Your task to perform on an android device: see creations saved in the google photos Image 0: 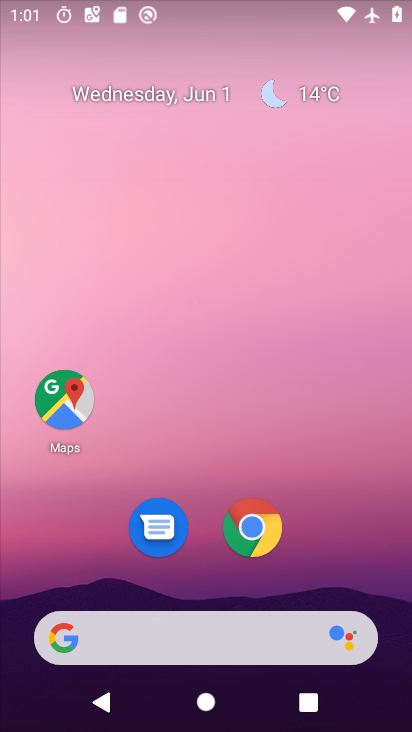
Step 0: drag from (377, 591) to (365, 14)
Your task to perform on an android device: see creations saved in the google photos Image 1: 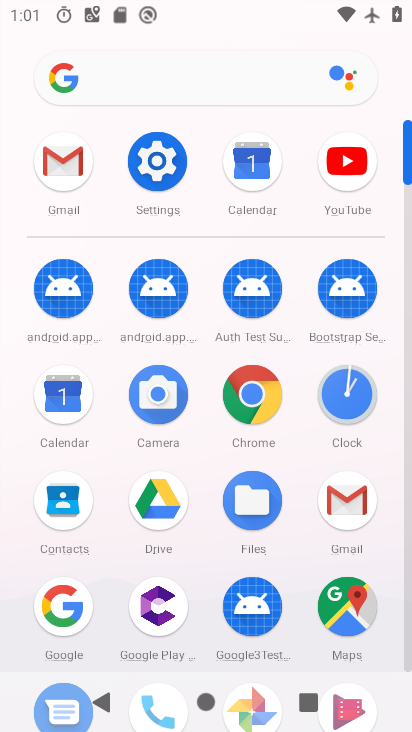
Step 1: click (405, 546)
Your task to perform on an android device: see creations saved in the google photos Image 2: 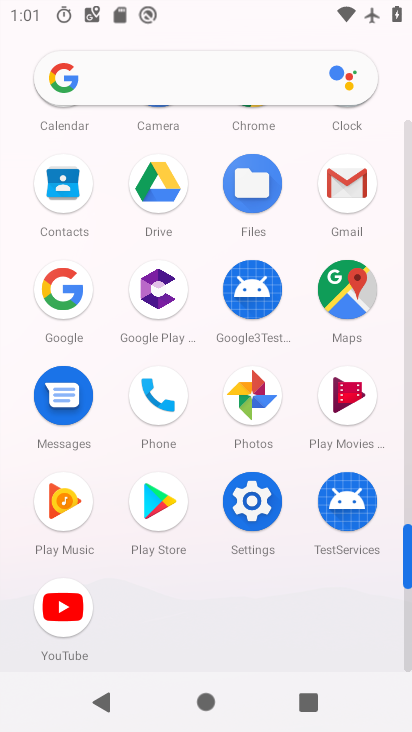
Step 2: click (257, 401)
Your task to perform on an android device: see creations saved in the google photos Image 3: 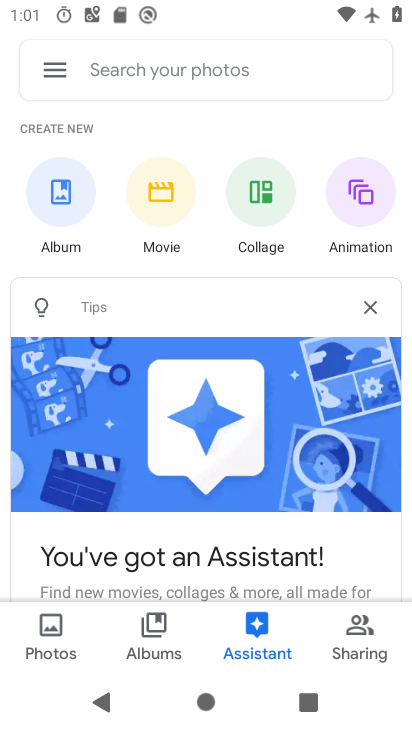
Step 3: click (103, 69)
Your task to perform on an android device: see creations saved in the google photos Image 4: 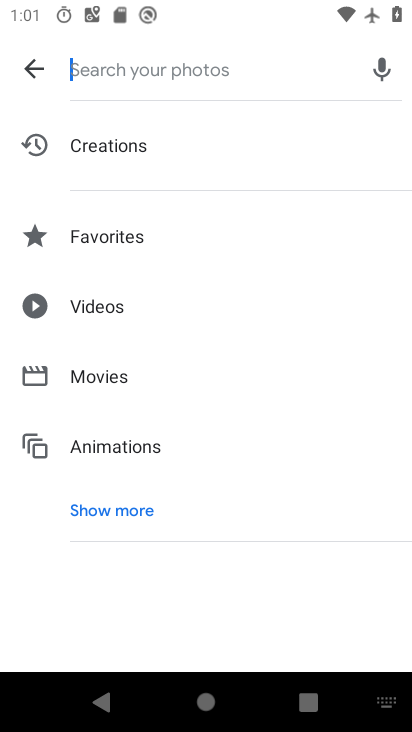
Step 4: click (109, 147)
Your task to perform on an android device: see creations saved in the google photos Image 5: 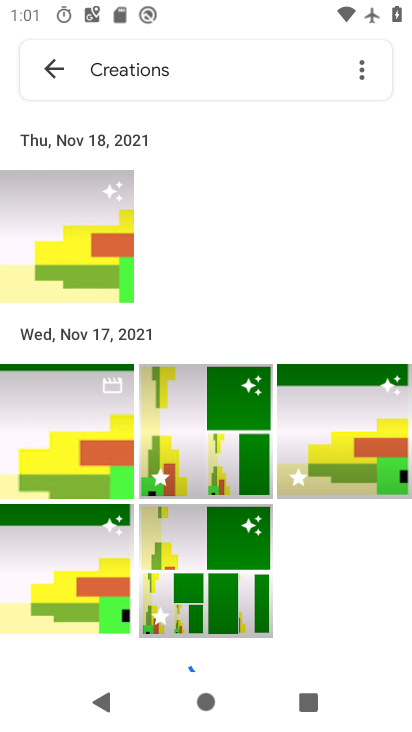
Step 5: task complete